Your task to perform on an android device: turn off data saver in the chrome app Image 0: 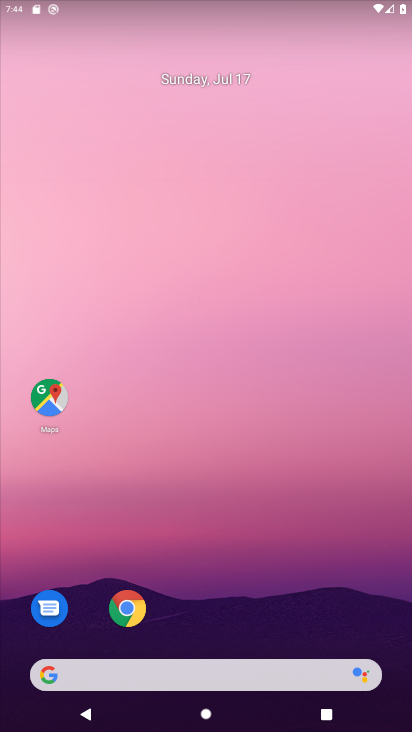
Step 0: drag from (319, 659) to (195, 67)
Your task to perform on an android device: turn off data saver in the chrome app Image 1: 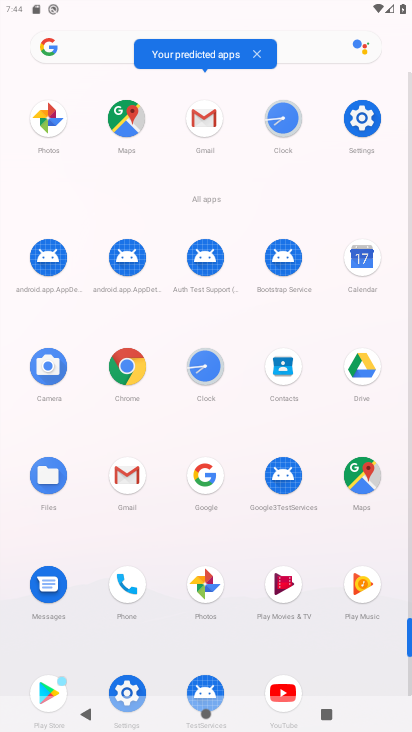
Step 1: click (125, 372)
Your task to perform on an android device: turn off data saver in the chrome app Image 2: 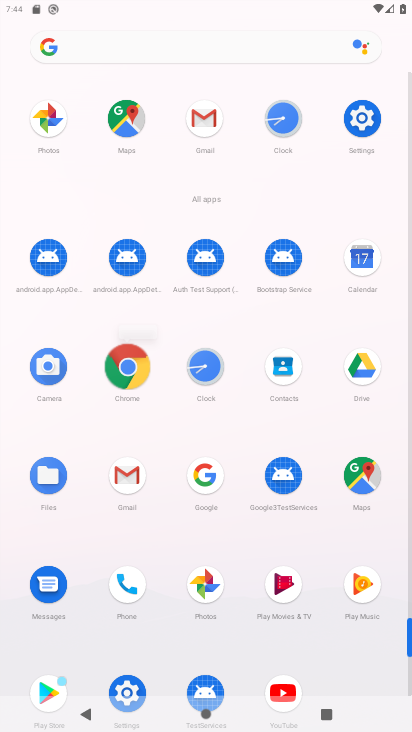
Step 2: click (131, 369)
Your task to perform on an android device: turn off data saver in the chrome app Image 3: 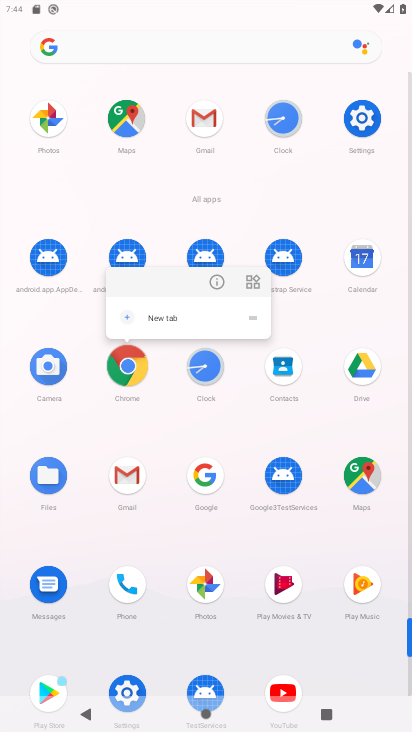
Step 3: click (133, 369)
Your task to perform on an android device: turn off data saver in the chrome app Image 4: 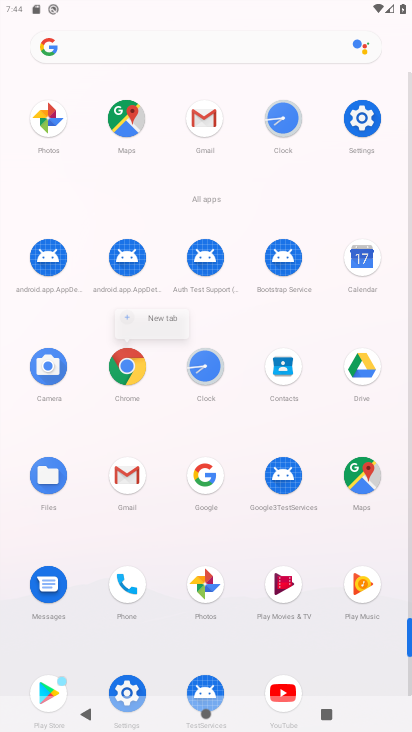
Step 4: click (134, 369)
Your task to perform on an android device: turn off data saver in the chrome app Image 5: 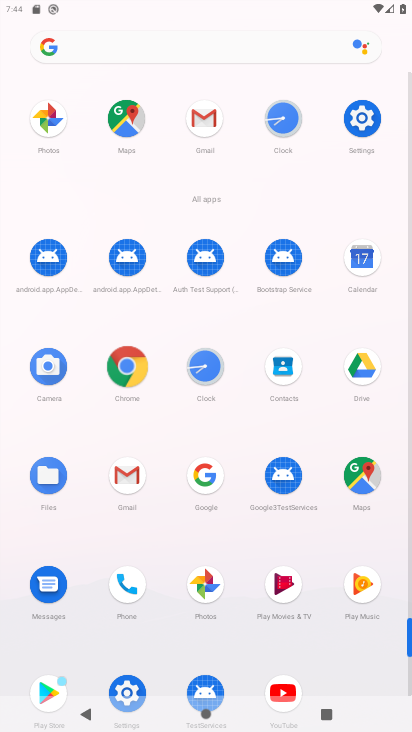
Step 5: click (136, 368)
Your task to perform on an android device: turn off data saver in the chrome app Image 6: 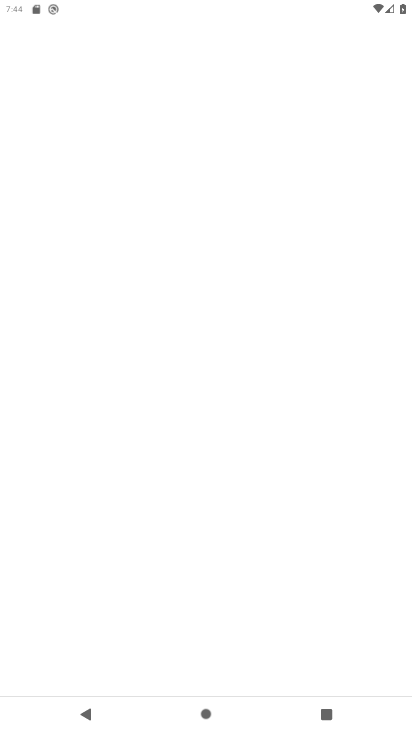
Step 6: click (129, 378)
Your task to perform on an android device: turn off data saver in the chrome app Image 7: 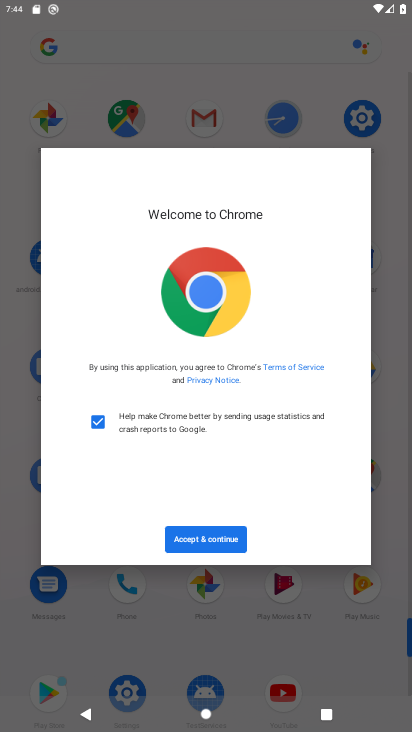
Step 7: click (219, 537)
Your task to perform on an android device: turn off data saver in the chrome app Image 8: 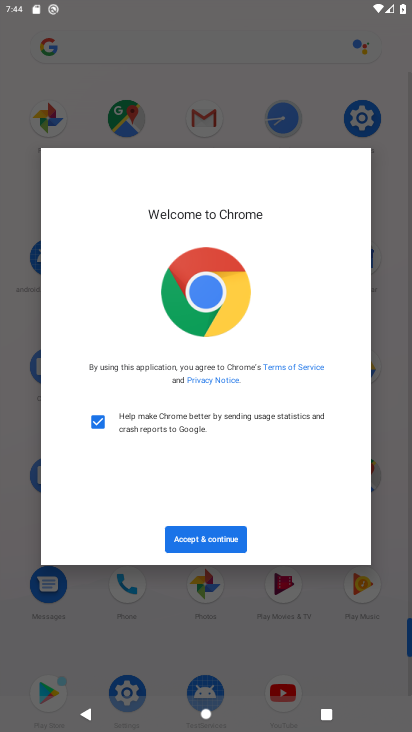
Step 8: click (219, 537)
Your task to perform on an android device: turn off data saver in the chrome app Image 9: 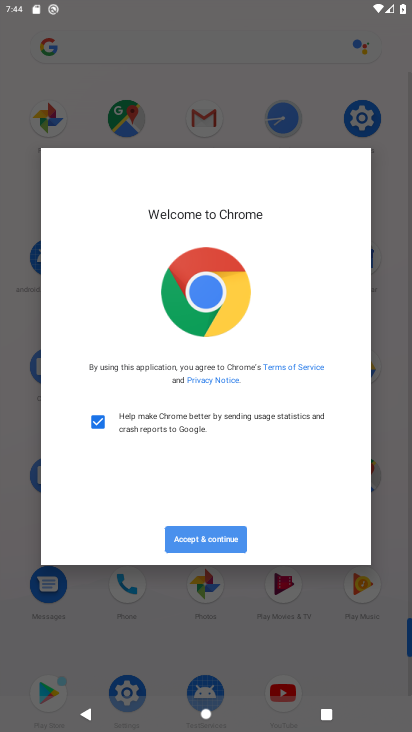
Step 9: click (219, 537)
Your task to perform on an android device: turn off data saver in the chrome app Image 10: 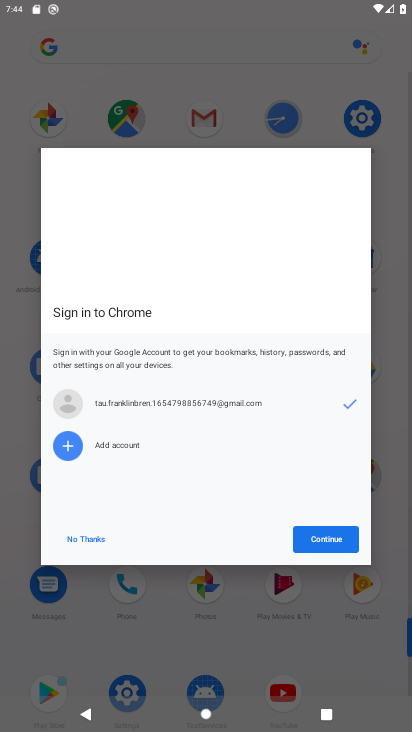
Step 10: click (329, 537)
Your task to perform on an android device: turn off data saver in the chrome app Image 11: 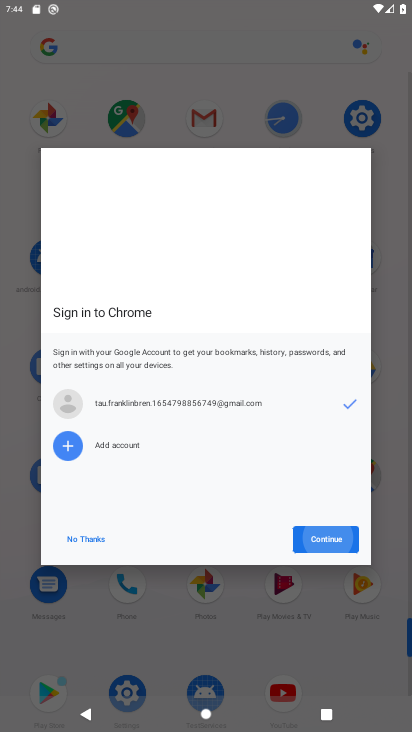
Step 11: click (330, 539)
Your task to perform on an android device: turn off data saver in the chrome app Image 12: 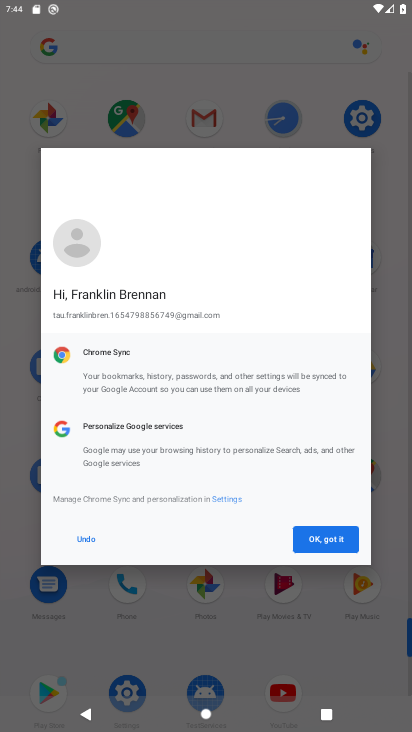
Step 12: click (338, 534)
Your task to perform on an android device: turn off data saver in the chrome app Image 13: 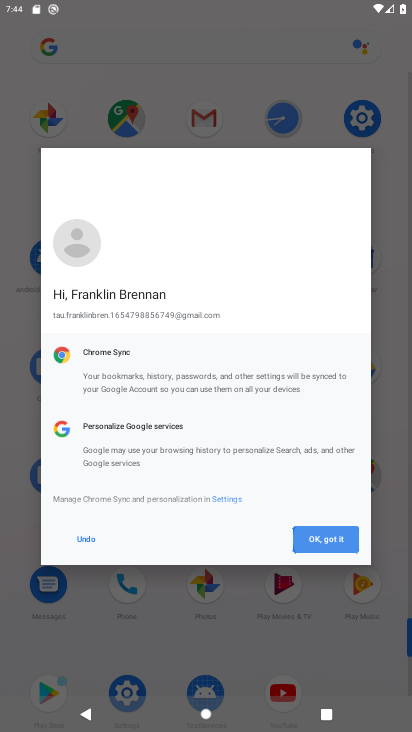
Step 13: click (338, 531)
Your task to perform on an android device: turn off data saver in the chrome app Image 14: 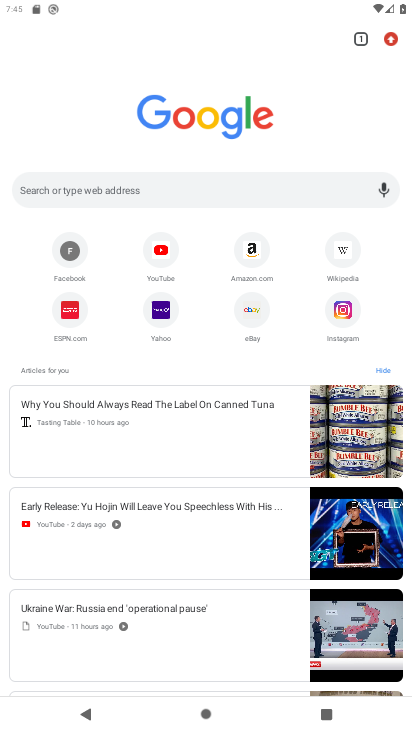
Step 14: drag from (232, 536) to (146, 1)
Your task to perform on an android device: turn off data saver in the chrome app Image 15: 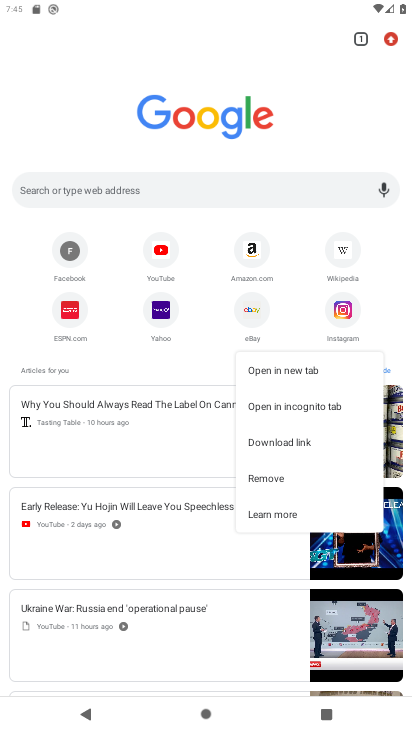
Step 15: drag from (393, 36) to (376, 201)
Your task to perform on an android device: turn off data saver in the chrome app Image 16: 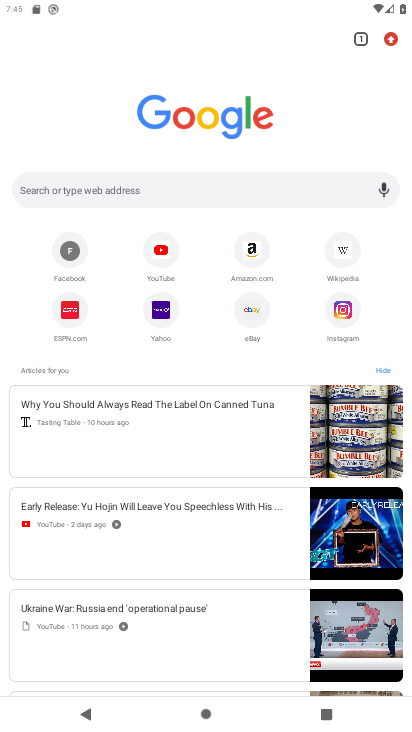
Step 16: click (400, 31)
Your task to perform on an android device: turn off data saver in the chrome app Image 17: 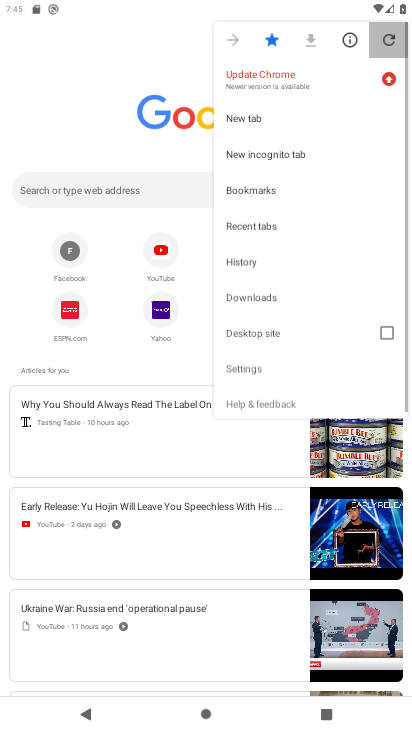
Step 17: click (393, 41)
Your task to perform on an android device: turn off data saver in the chrome app Image 18: 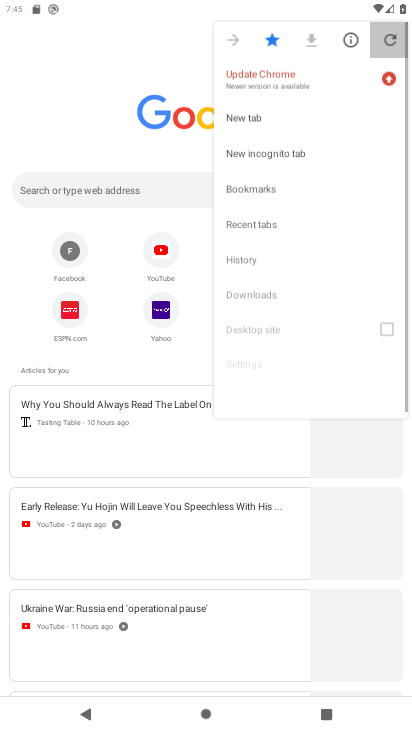
Step 18: drag from (393, 40) to (318, 373)
Your task to perform on an android device: turn off data saver in the chrome app Image 19: 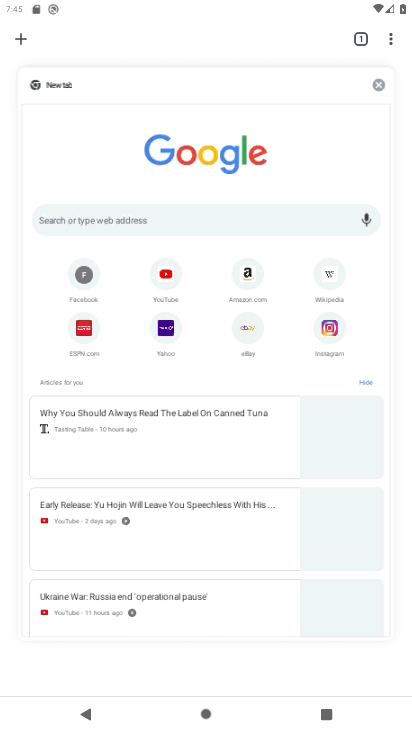
Step 19: drag from (401, 36) to (380, 97)
Your task to perform on an android device: turn off data saver in the chrome app Image 20: 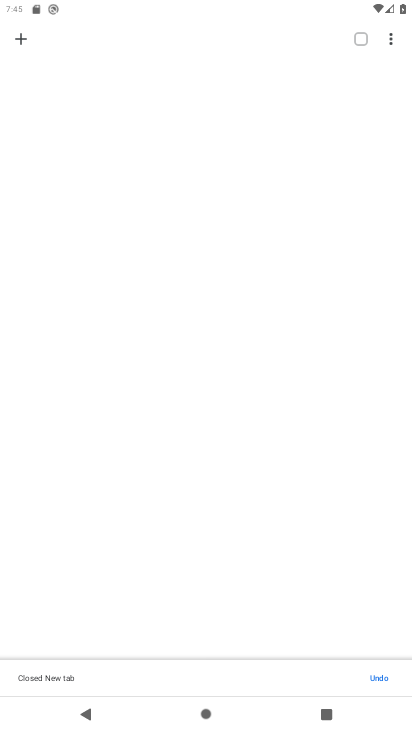
Step 20: drag from (389, 41) to (101, 155)
Your task to perform on an android device: turn off data saver in the chrome app Image 21: 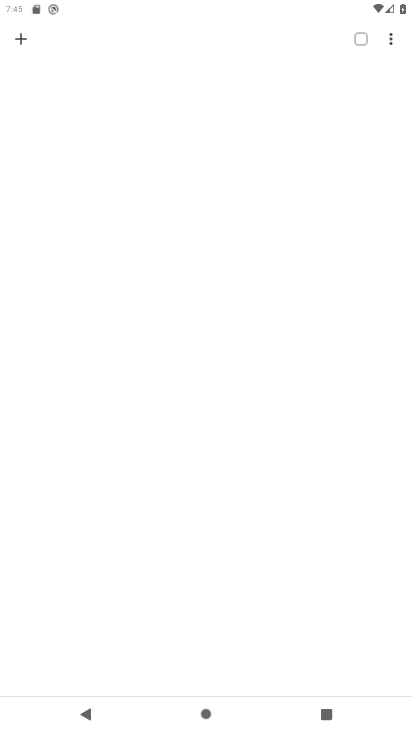
Step 21: click (26, 43)
Your task to perform on an android device: turn off data saver in the chrome app Image 22: 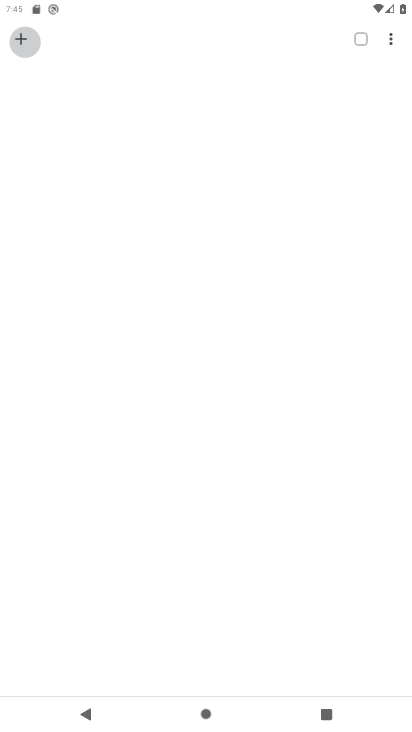
Step 22: click (26, 43)
Your task to perform on an android device: turn off data saver in the chrome app Image 23: 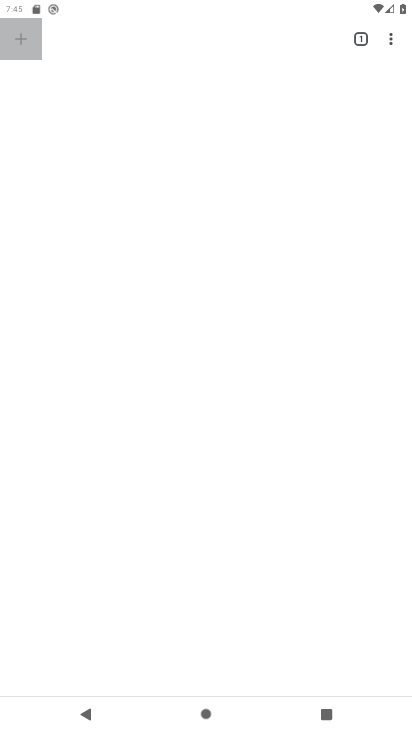
Step 23: click (27, 43)
Your task to perform on an android device: turn off data saver in the chrome app Image 24: 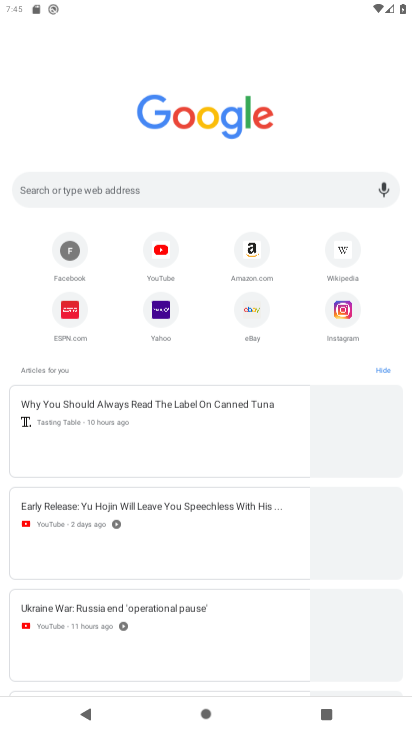
Step 24: click (28, 43)
Your task to perform on an android device: turn off data saver in the chrome app Image 25: 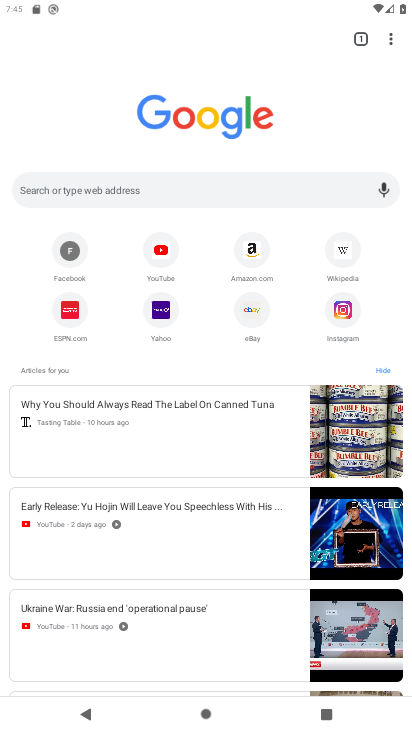
Step 25: drag from (387, 33) to (243, 371)
Your task to perform on an android device: turn off data saver in the chrome app Image 26: 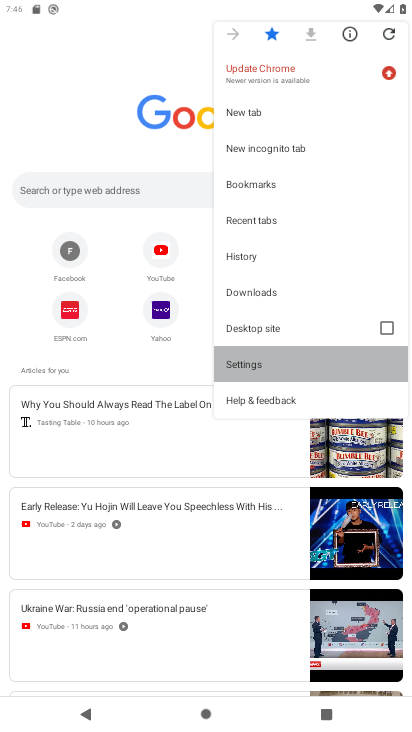
Step 26: click (243, 366)
Your task to perform on an android device: turn off data saver in the chrome app Image 27: 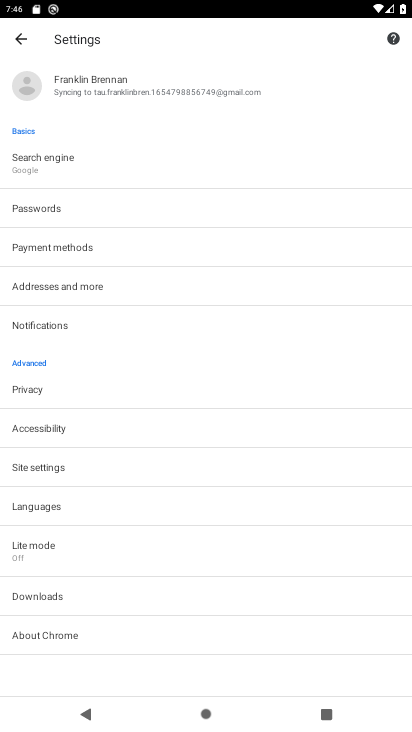
Step 27: click (29, 534)
Your task to perform on an android device: turn off data saver in the chrome app Image 28: 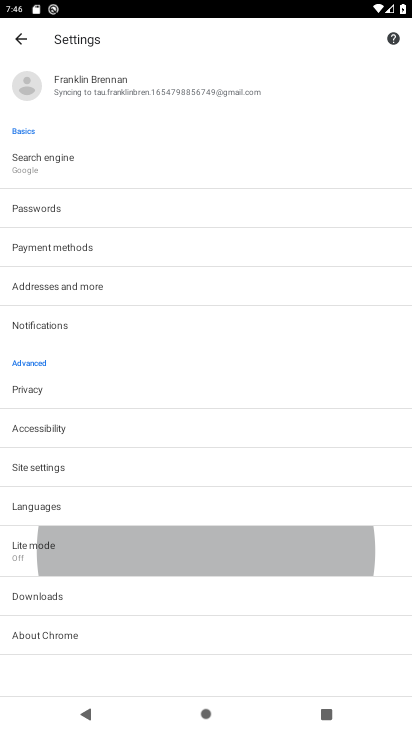
Step 28: click (28, 540)
Your task to perform on an android device: turn off data saver in the chrome app Image 29: 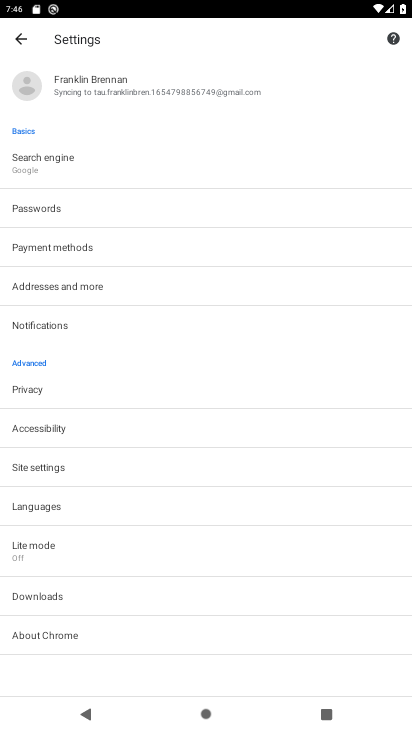
Step 29: click (29, 543)
Your task to perform on an android device: turn off data saver in the chrome app Image 30: 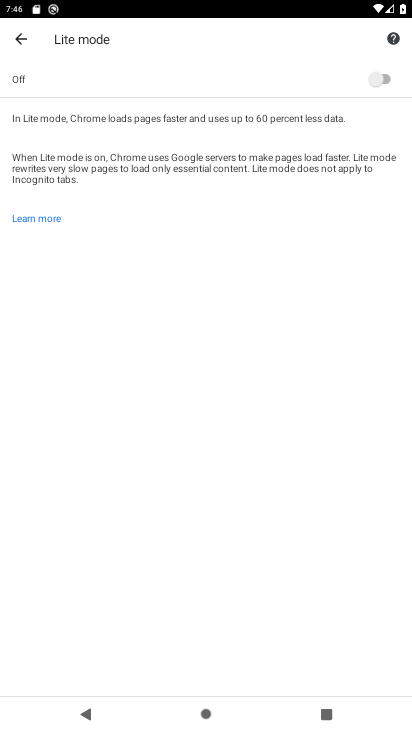
Step 30: task complete